Your task to perform on an android device: Open display settings Image 0: 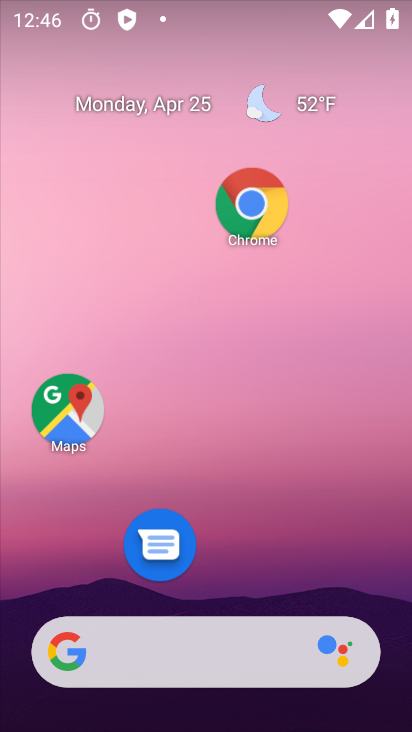
Step 0: drag from (269, 675) to (293, 336)
Your task to perform on an android device: Open display settings Image 1: 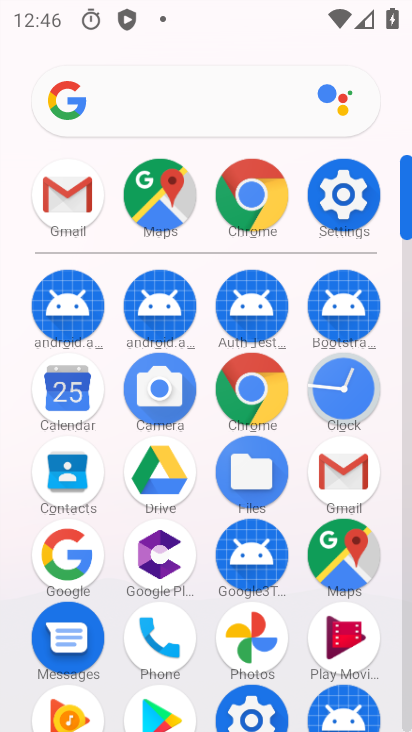
Step 1: click (355, 206)
Your task to perform on an android device: Open display settings Image 2: 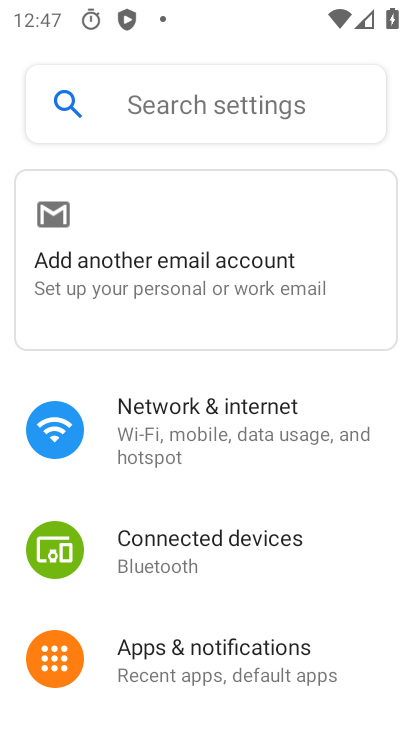
Step 2: drag from (186, 480) to (207, 250)
Your task to perform on an android device: Open display settings Image 3: 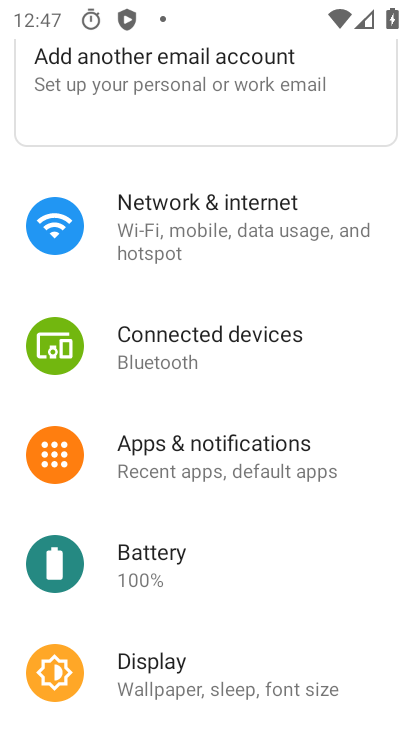
Step 3: click (169, 658)
Your task to perform on an android device: Open display settings Image 4: 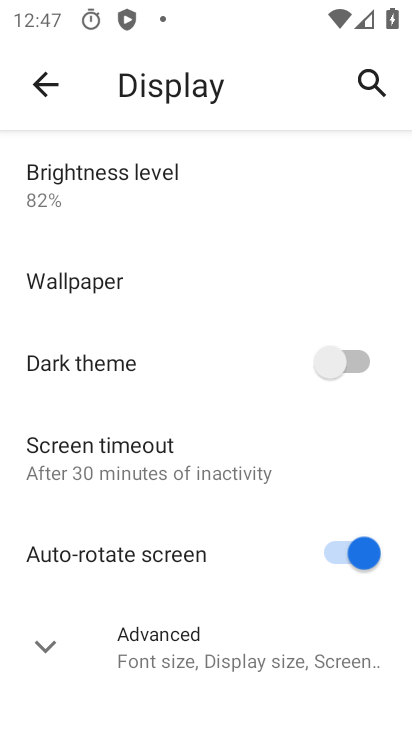
Step 4: task complete